Your task to perform on an android device: Go to Reddit.com Image 0: 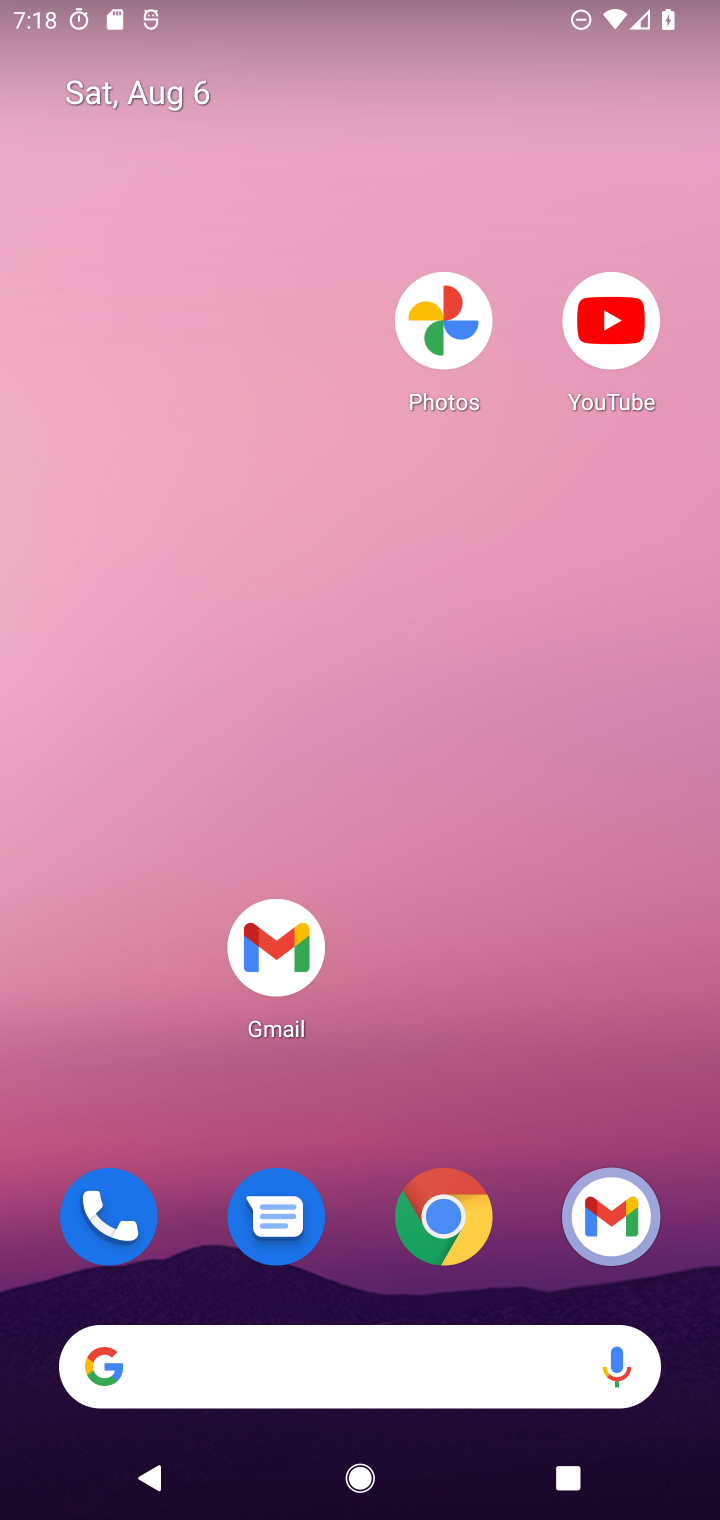
Step 0: drag from (516, 1057) to (597, 143)
Your task to perform on an android device: Go to Reddit.com Image 1: 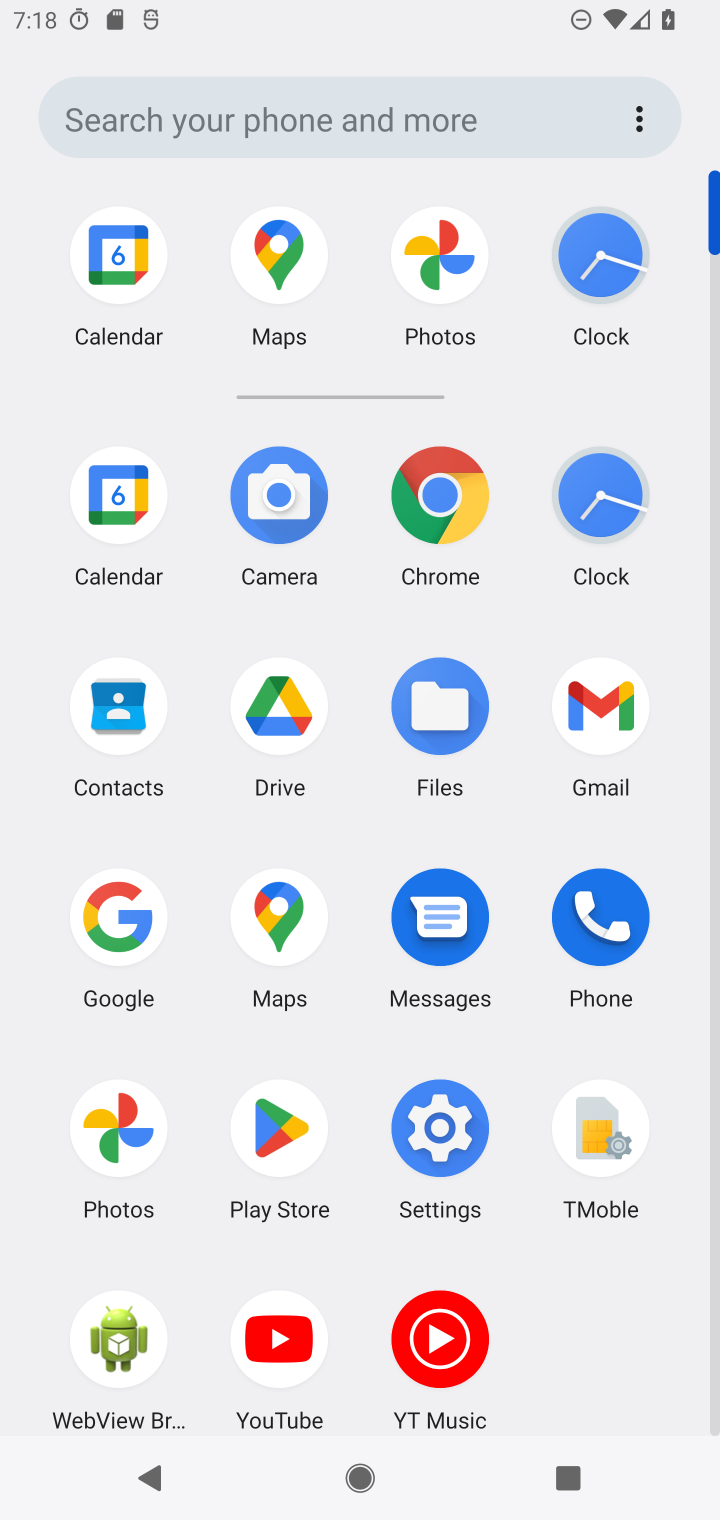
Step 1: click (436, 486)
Your task to perform on an android device: Go to Reddit.com Image 2: 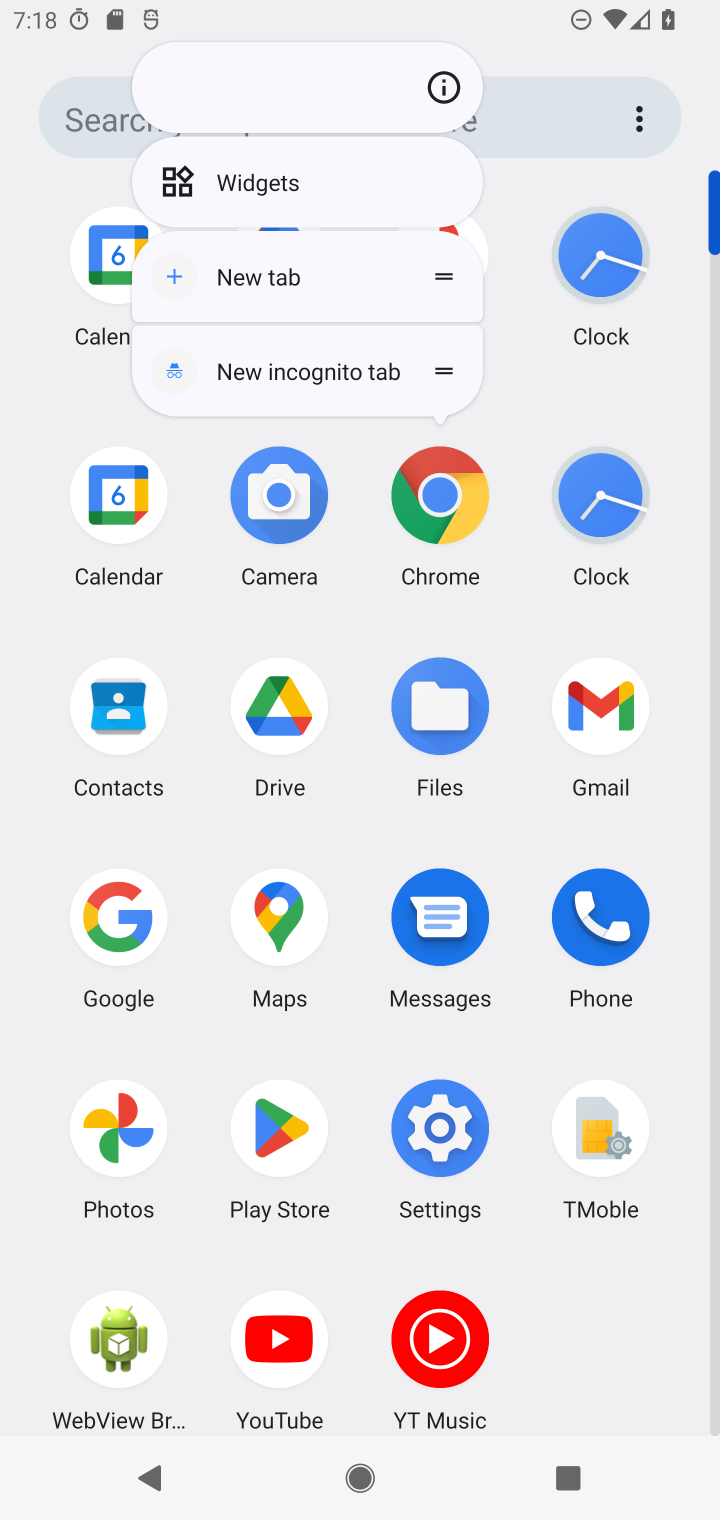
Step 2: click (436, 486)
Your task to perform on an android device: Go to Reddit.com Image 3: 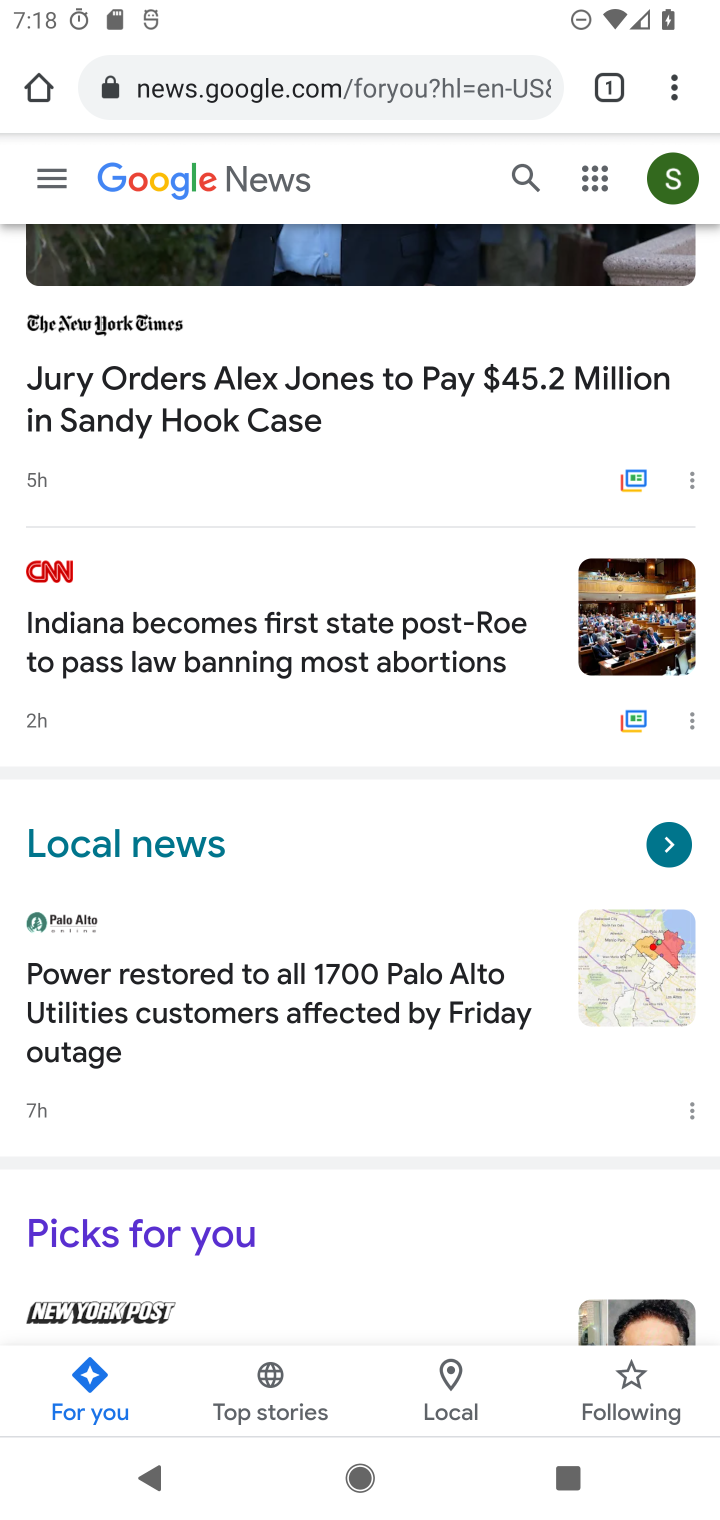
Step 3: click (458, 72)
Your task to perform on an android device: Go to Reddit.com Image 4: 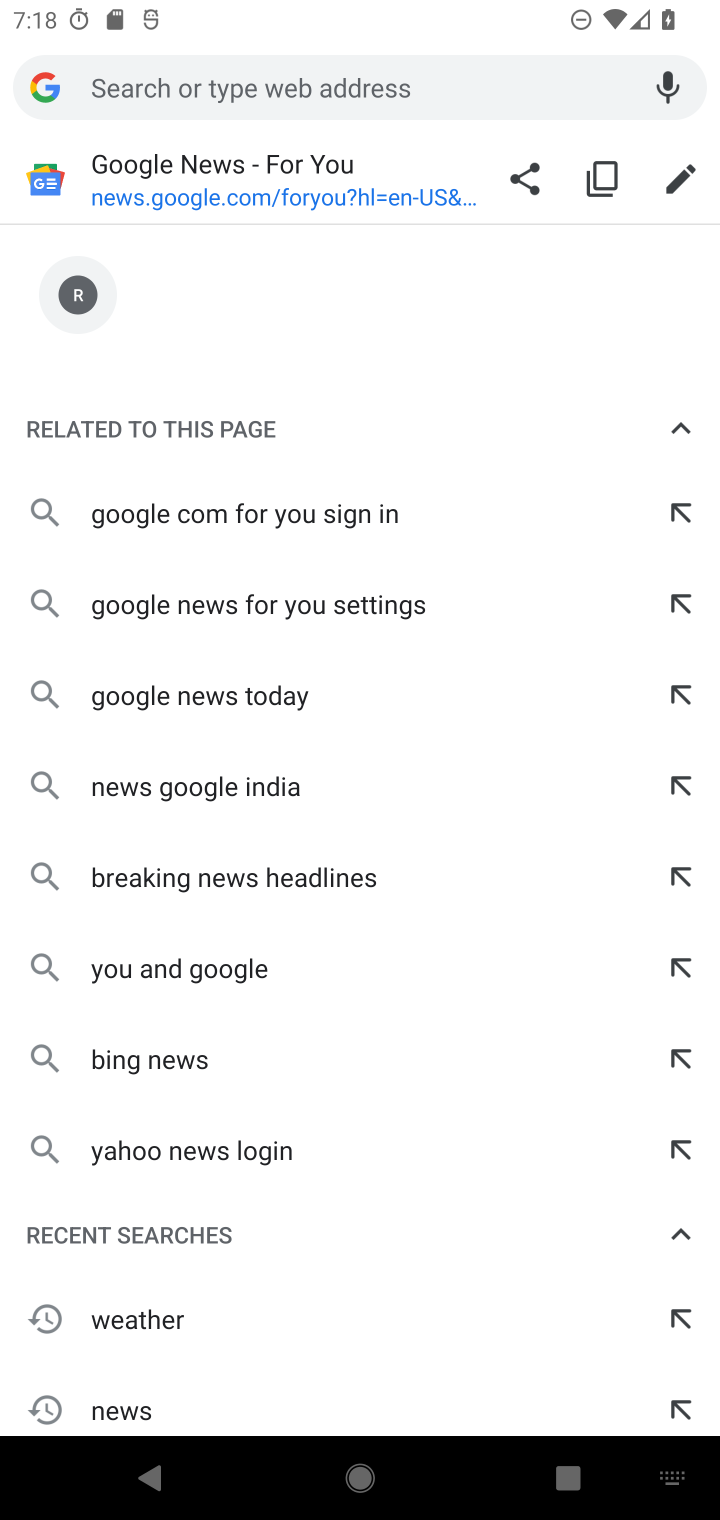
Step 4: type "reddit.com"
Your task to perform on an android device: Go to Reddit.com Image 5: 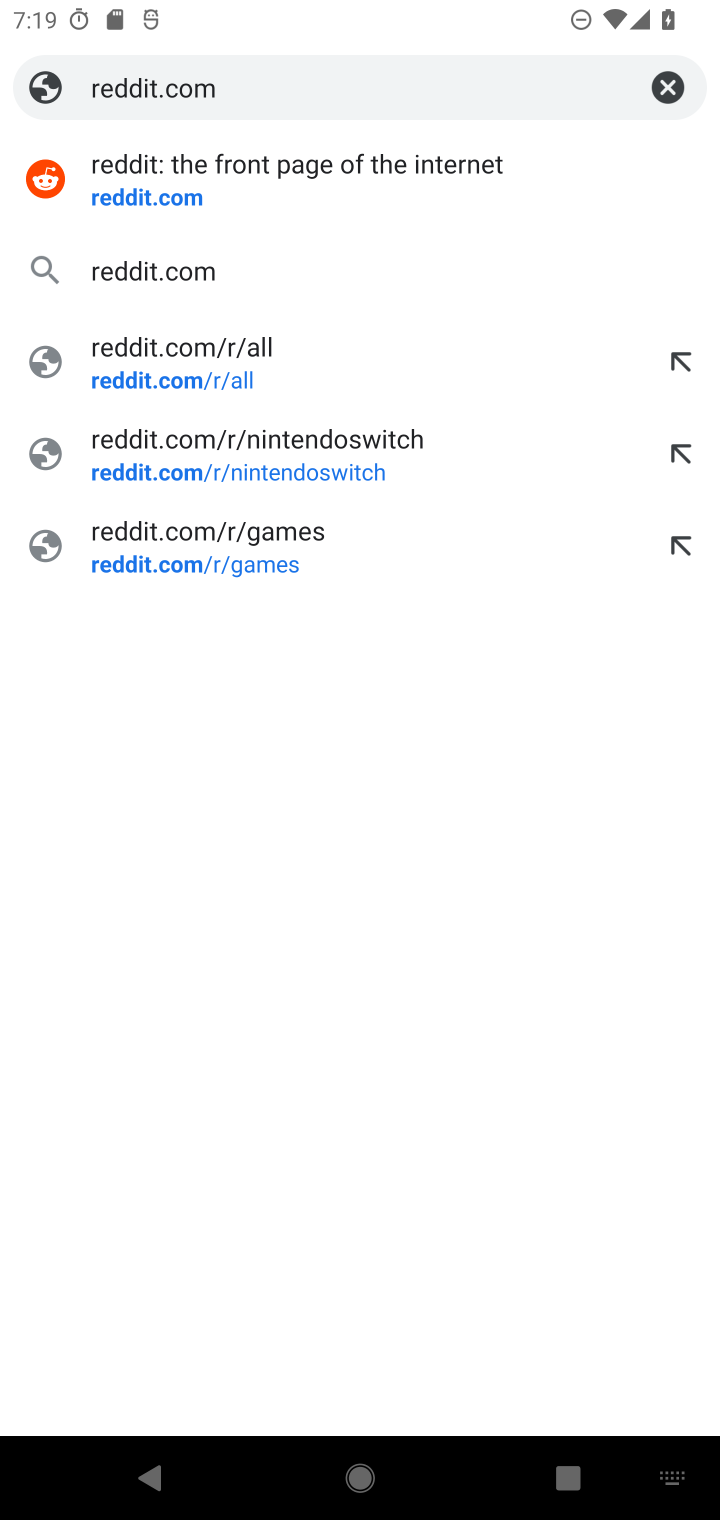
Step 5: click (177, 181)
Your task to perform on an android device: Go to Reddit.com Image 6: 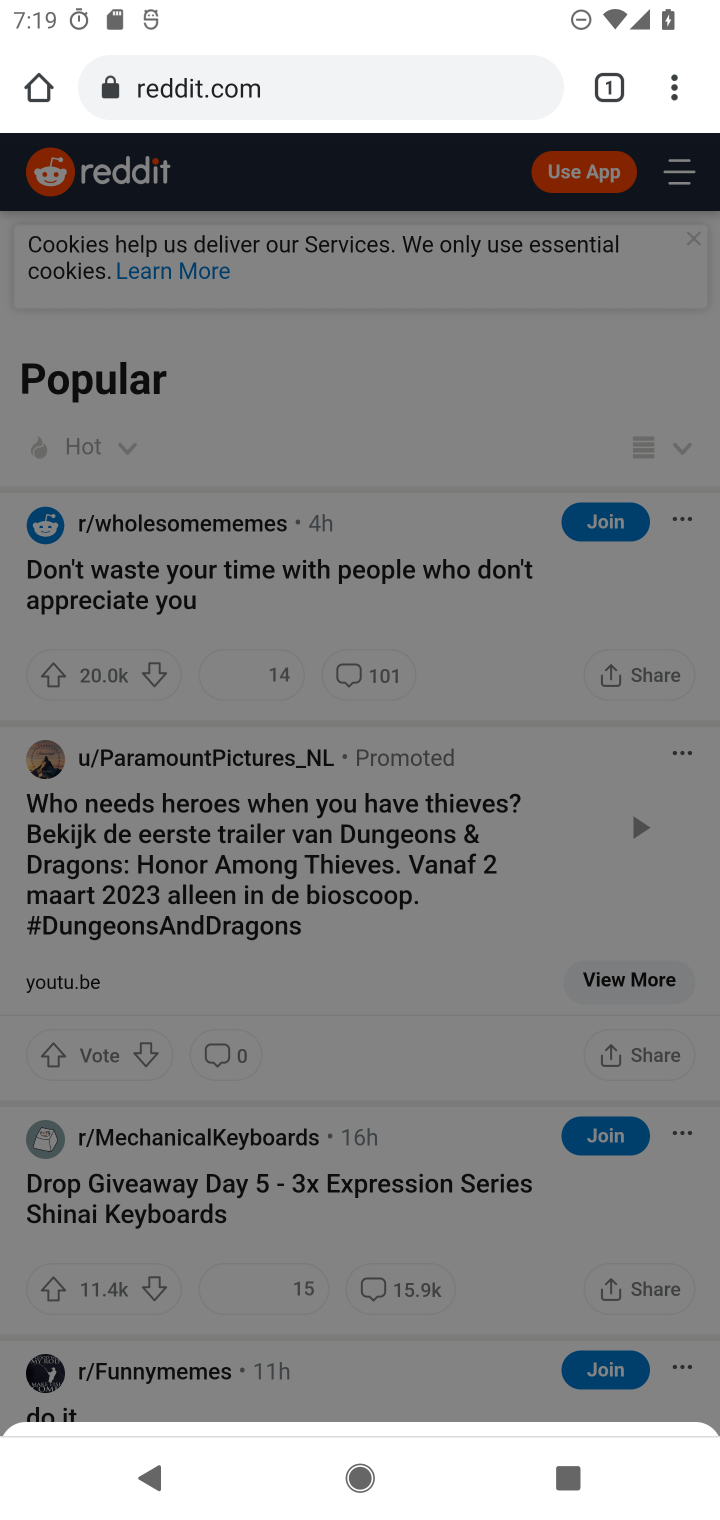
Step 6: task complete